Your task to perform on an android device: delete the emails in spam in the gmail app Image 0: 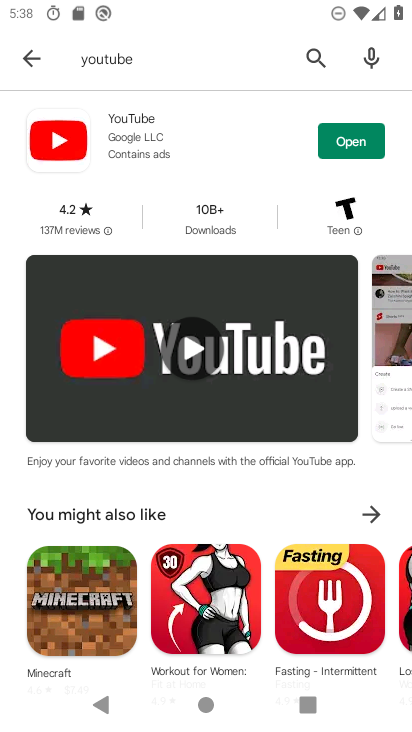
Step 0: press home button
Your task to perform on an android device: delete the emails in spam in the gmail app Image 1: 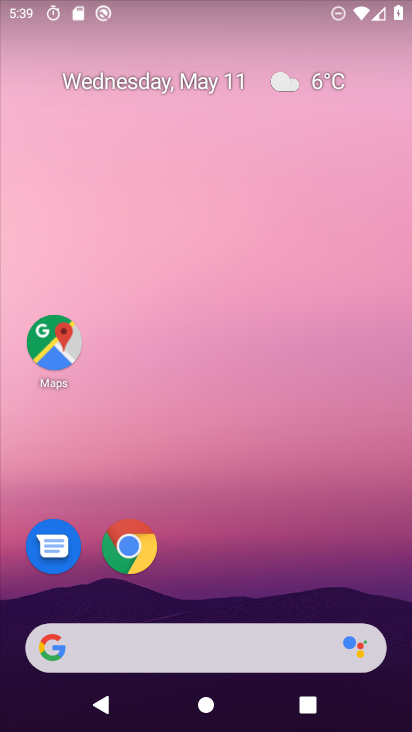
Step 1: drag from (212, 617) to (191, 211)
Your task to perform on an android device: delete the emails in spam in the gmail app Image 2: 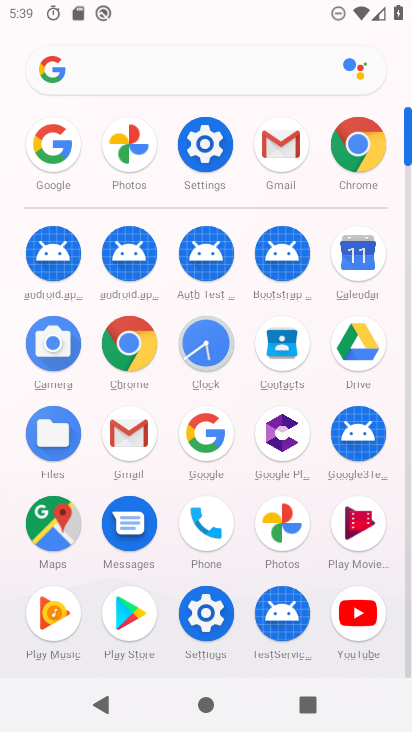
Step 2: click (288, 148)
Your task to perform on an android device: delete the emails in spam in the gmail app Image 3: 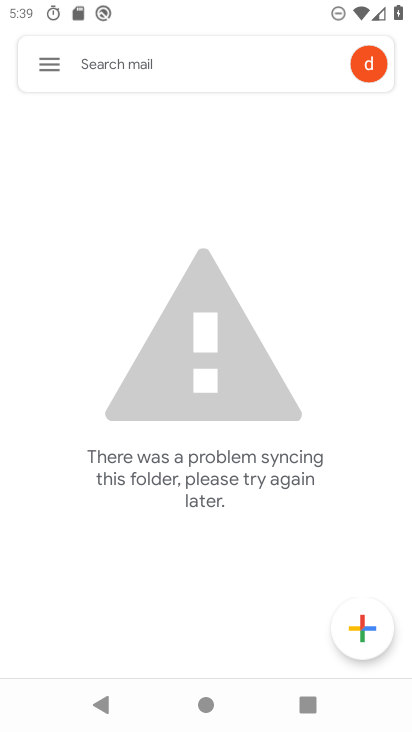
Step 3: click (51, 65)
Your task to perform on an android device: delete the emails in spam in the gmail app Image 4: 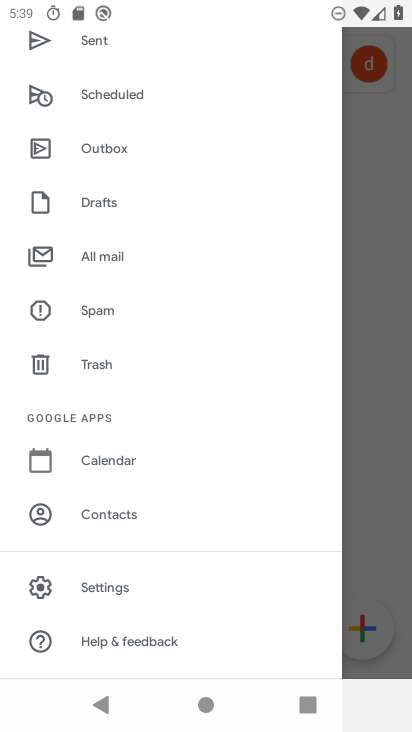
Step 4: click (87, 319)
Your task to perform on an android device: delete the emails in spam in the gmail app Image 5: 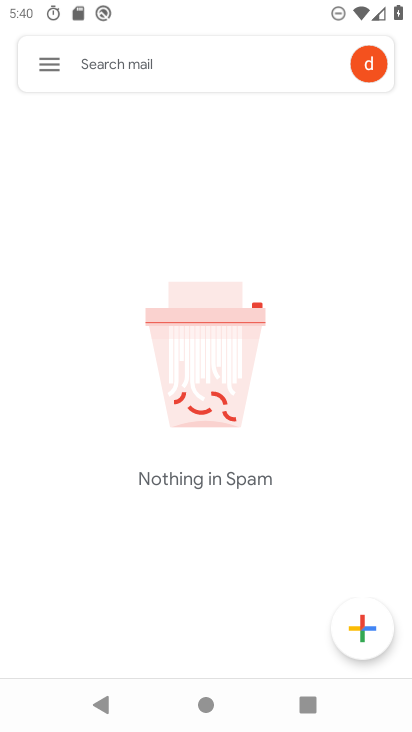
Step 5: task complete